Your task to perform on an android device: Open Android settings Image 0: 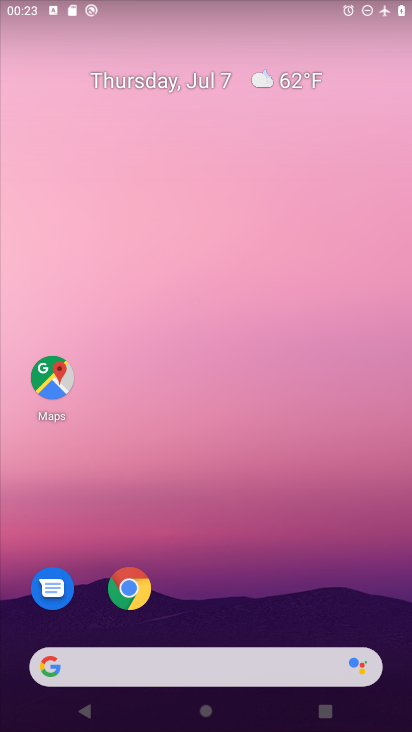
Step 0: drag from (375, 610) to (347, 66)
Your task to perform on an android device: Open Android settings Image 1: 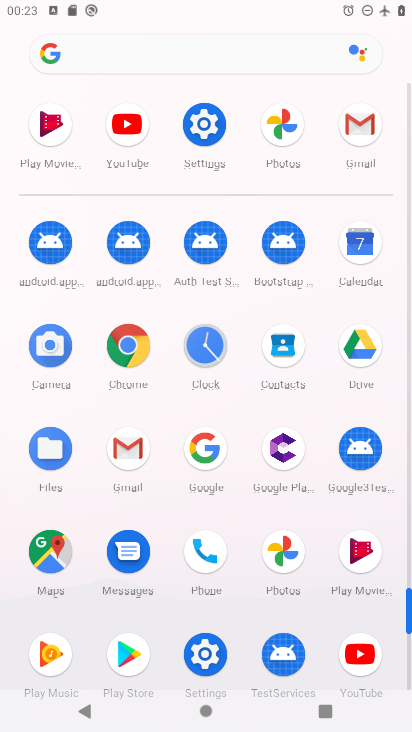
Step 1: click (203, 655)
Your task to perform on an android device: Open Android settings Image 2: 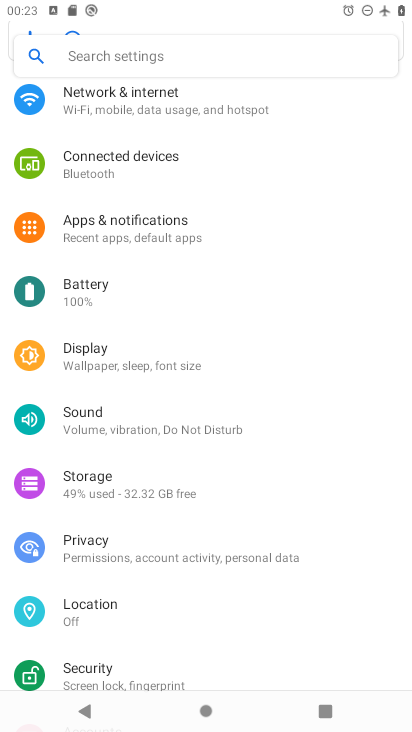
Step 2: drag from (360, 634) to (353, 96)
Your task to perform on an android device: Open Android settings Image 3: 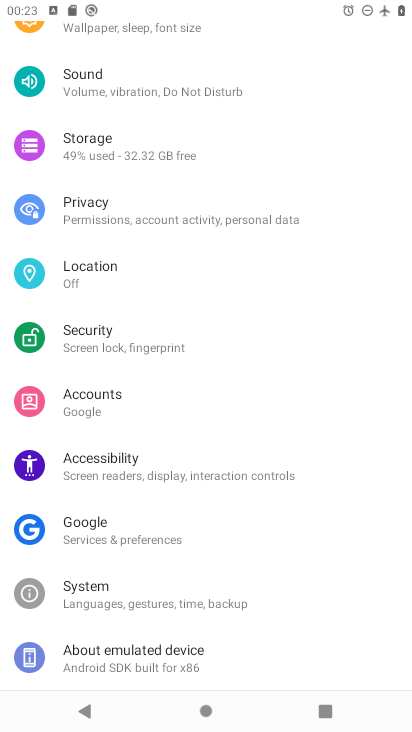
Step 3: drag from (314, 596) to (305, 233)
Your task to perform on an android device: Open Android settings Image 4: 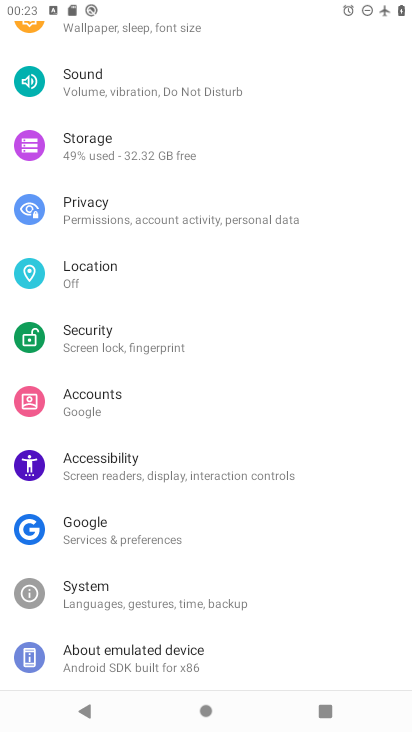
Step 4: click (92, 659)
Your task to perform on an android device: Open Android settings Image 5: 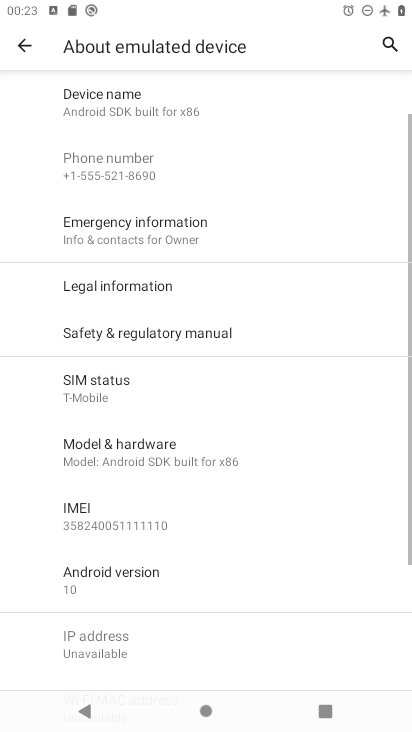
Step 5: task complete